Your task to perform on an android device: Go to Maps Image 0: 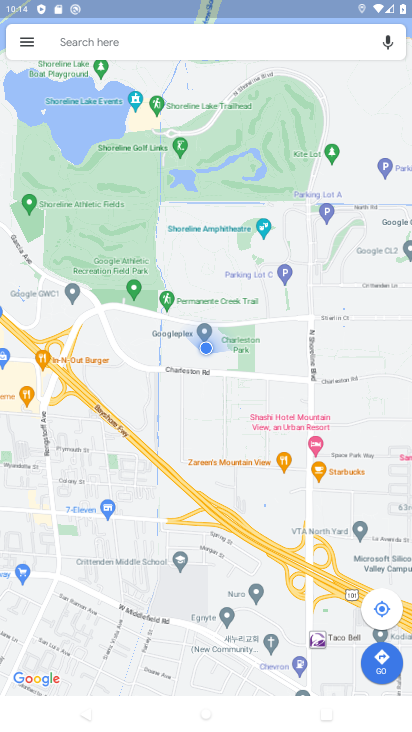
Step 0: task complete